Your task to perform on an android device: turn off javascript in the chrome app Image 0: 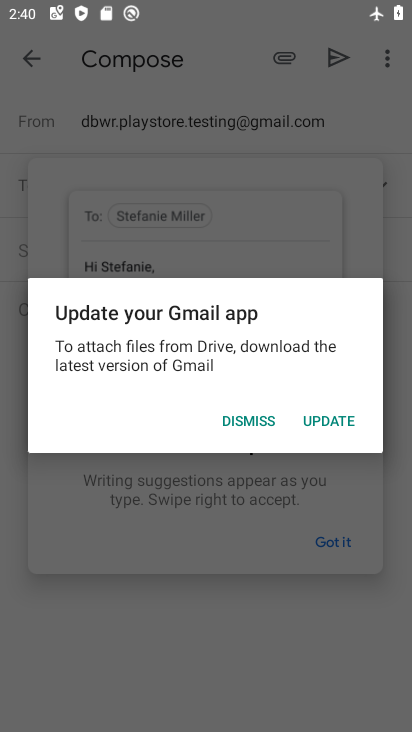
Step 0: press home button
Your task to perform on an android device: turn off javascript in the chrome app Image 1: 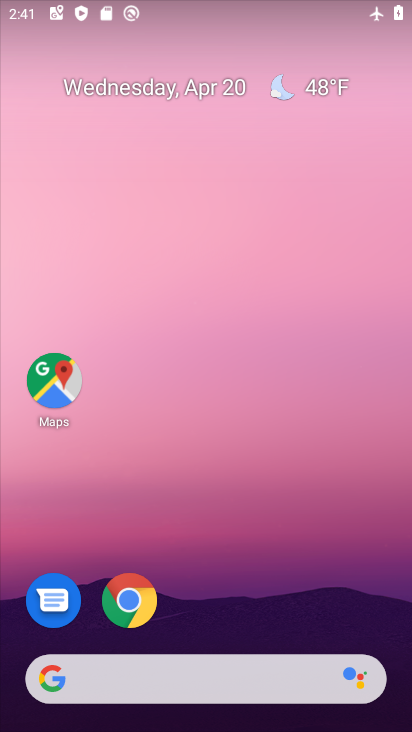
Step 1: drag from (298, 451) to (166, 15)
Your task to perform on an android device: turn off javascript in the chrome app Image 2: 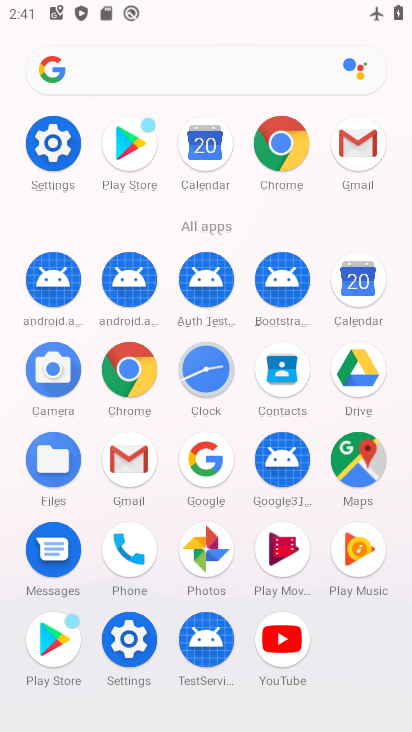
Step 2: click (308, 146)
Your task to perform on an android device: turn off javascript in the chrome app Image 3: 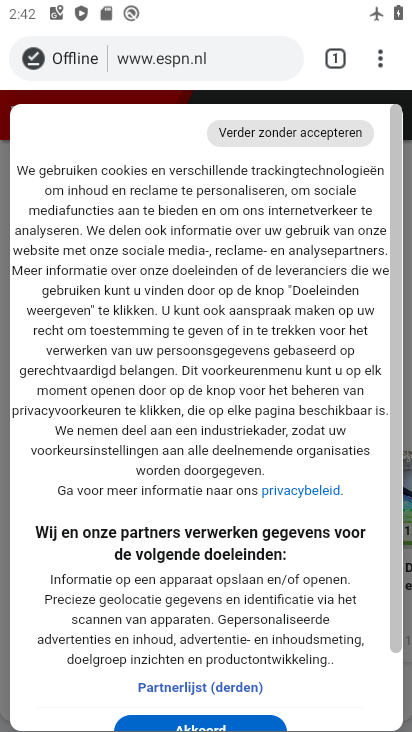
Step 3: drag from (283, 490) to (394, 202)
Your task to perform on an android device: turn off javascript in the chrome app Image 4: 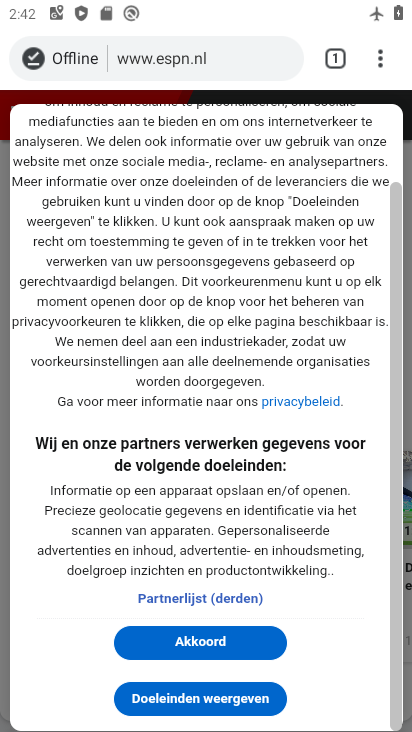
Step 4: drag from (162, 197) to (191, 557)
Your task to perform on an android device: turn off javascript in the chrome app Image 5: 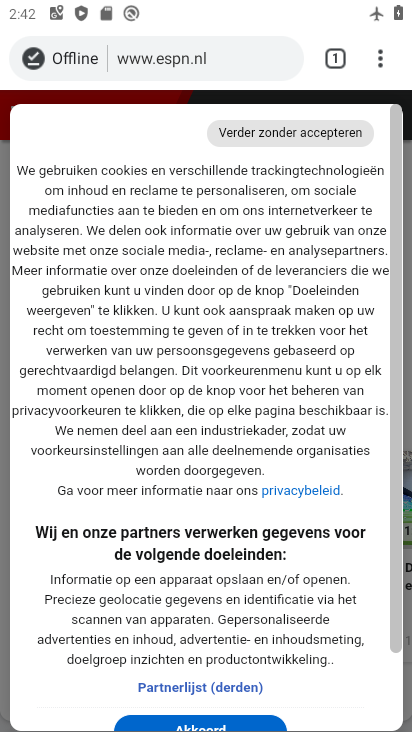
Step 5: drag from (291, 220) to (233, 571)
Your task to perform on an android device: turn off javascript in the chrome app Image 6: 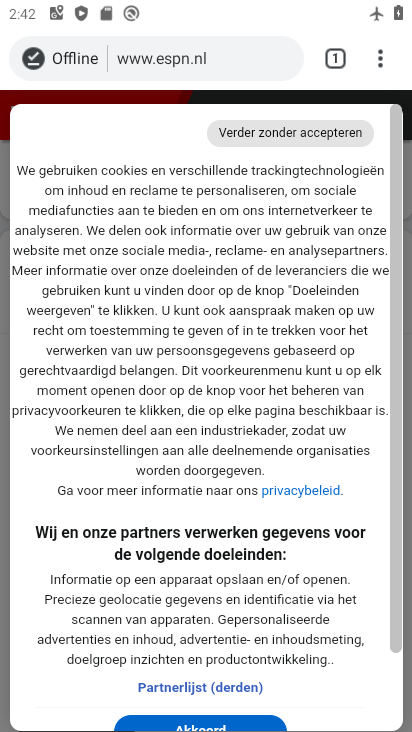
Step 6: drag from (284, 174) to (207, 535)
Your task to perform on an android device: turn off javascript in the chrome app Image 7: 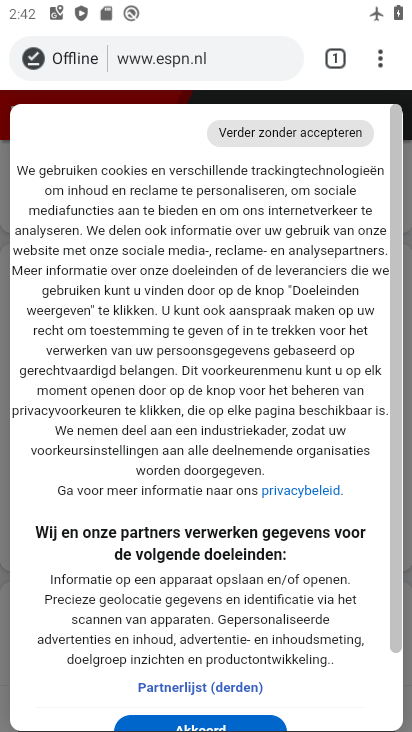
Step 7: drag from (186, 198) to (224, 562)
Your task to perform on an android device: turn off javascript in the chrome app Image 8: 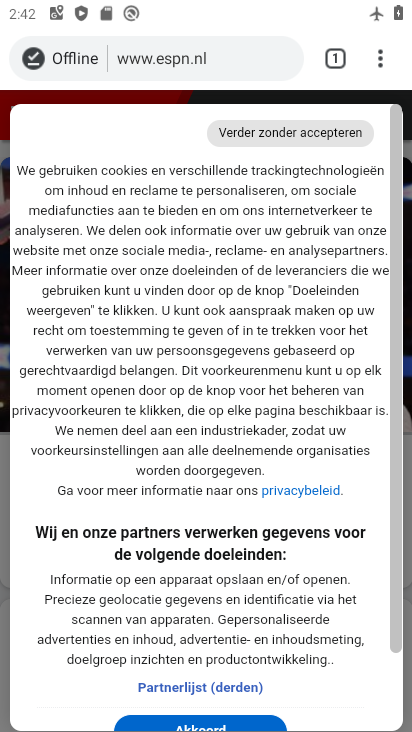
Step 8: press back button
Your task to perform on an android device: turn off javascript in the chrome app Image 9: 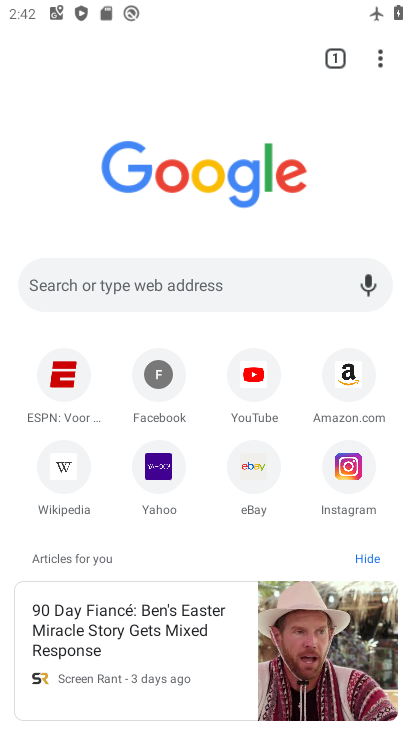
Step 9: drag from (380, 62) to (216, 517)
Your task to perform on an android device: turn off javascript in the chrome app Image 10: 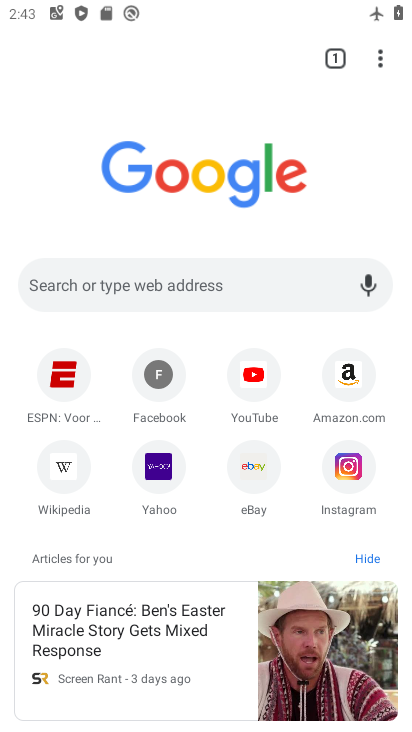
Step 10: drag from (380, 60) to (189, 554)
Your task to perform on an android device: turn off javascript in the chrome app Image 11: 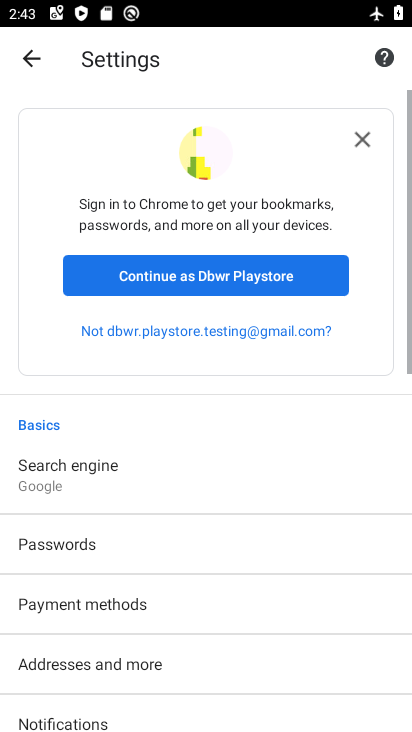
Step 11: drag from (177, 575) to (253, 273)
Your task to perform on an android device: turn off javascript in the chrome app Image 12: 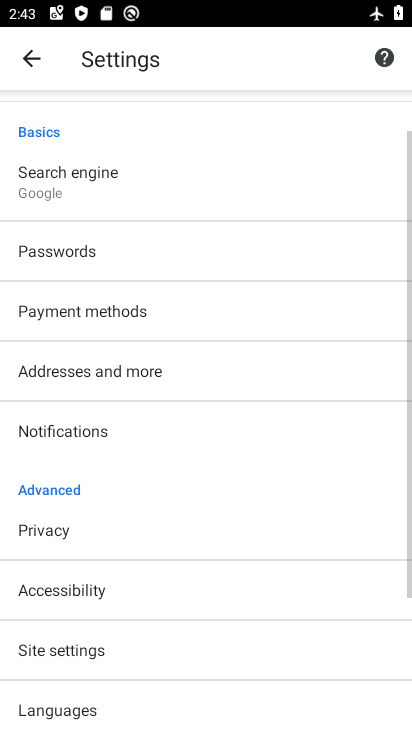
Step 12: drag from (175, 551) to (275, 140)
Your task to perform on an android device: turn off javascript in the chrome app Image 13: 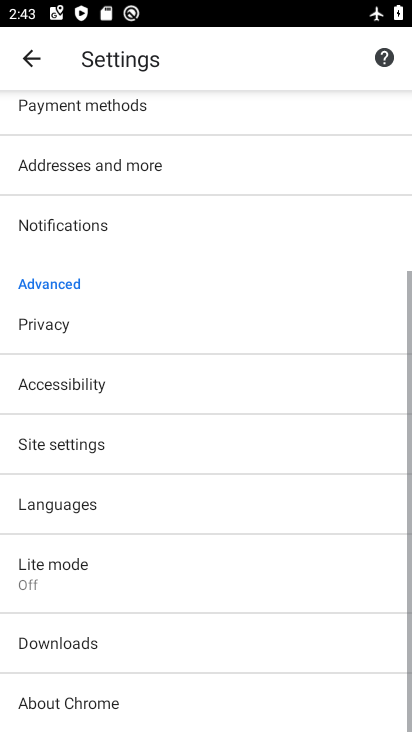
Step 13: click (48, 445)
Your task to perform on an android device: turn off javascript in the chrome app Image 14: 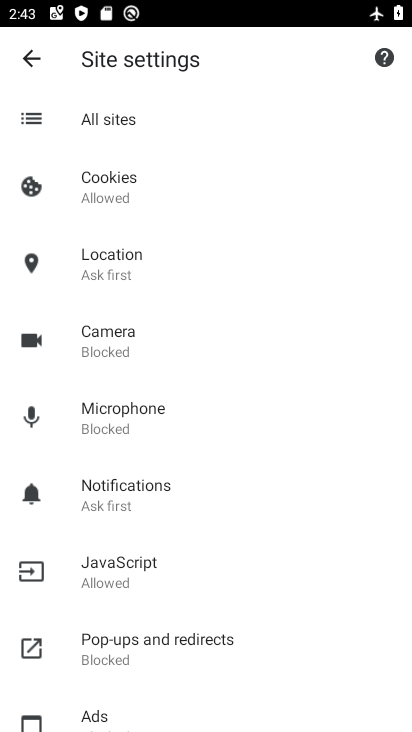
Step 14: drag from (187, 521) to (267, 289)
Your task to perform on an android device: turn off javascript in the chrome app Image 15: 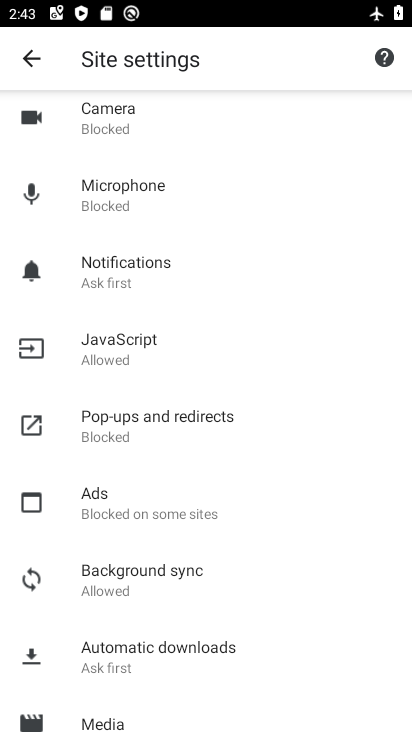
Step 15: click (119, 334)
Your task to perform on an android device: turn off javascript in the chrome app Image 16: 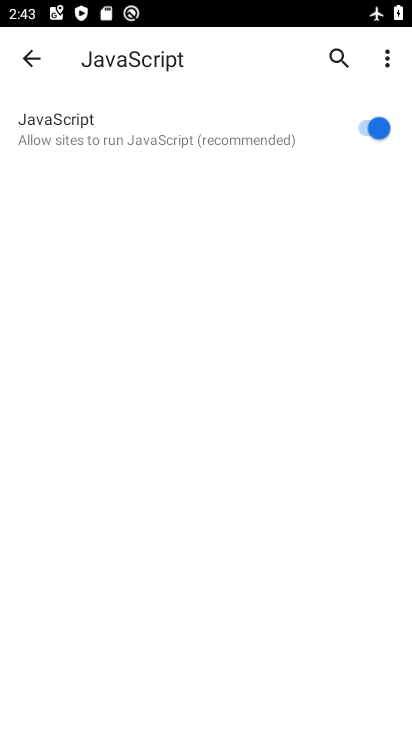
Step 16: click (389, 126)
Your task to perform on an android device: turn off javascript in the chrome app Image 17: 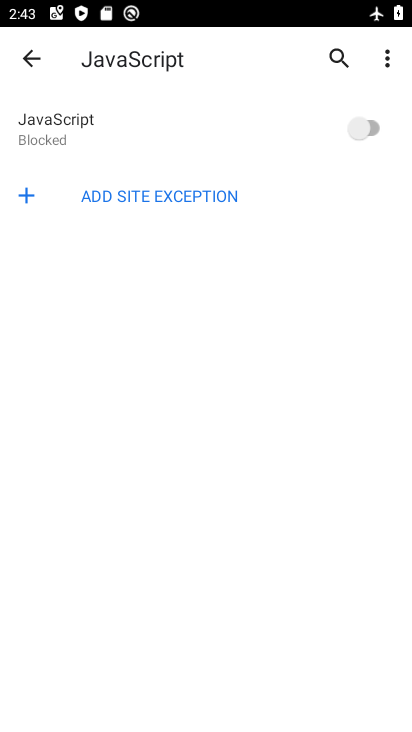
Step 17: task complete